Your task to perform on an android device: check data usage Image 0: 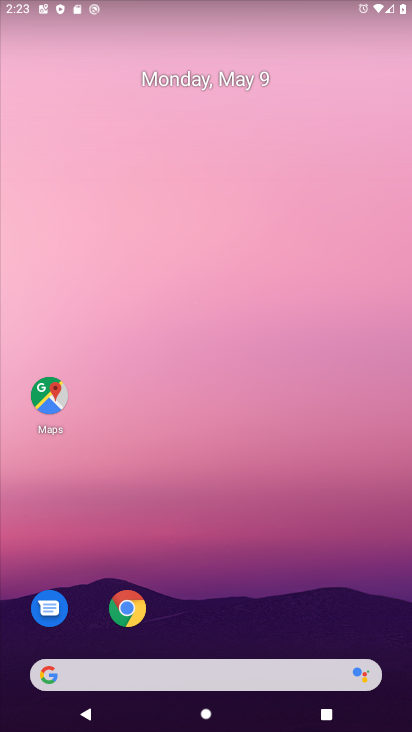
Step 0: drag from (195, 635) to (354, 16)
Your task to perform on an android device: check data usage Image 1: 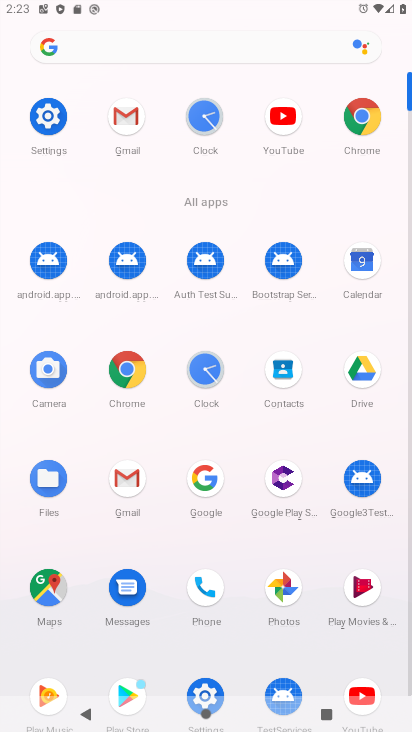
Step 1: click (53, 176)
Your task to perform on an android device: check data usage Image 2: 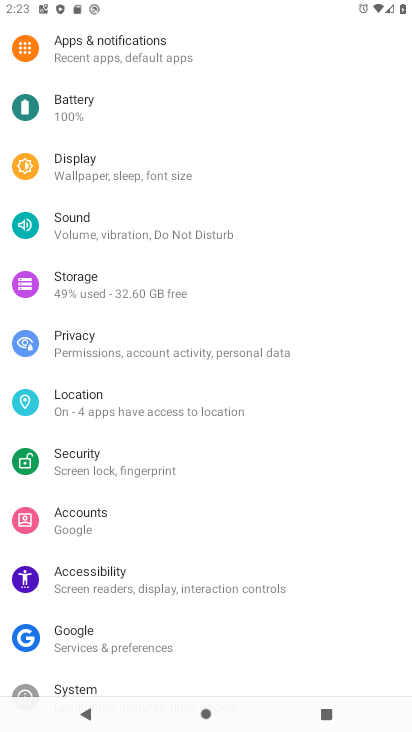
Step 2: drag from (295, 86) to (134, 599)
Your task to perform on an android device: check data usage Image 3: 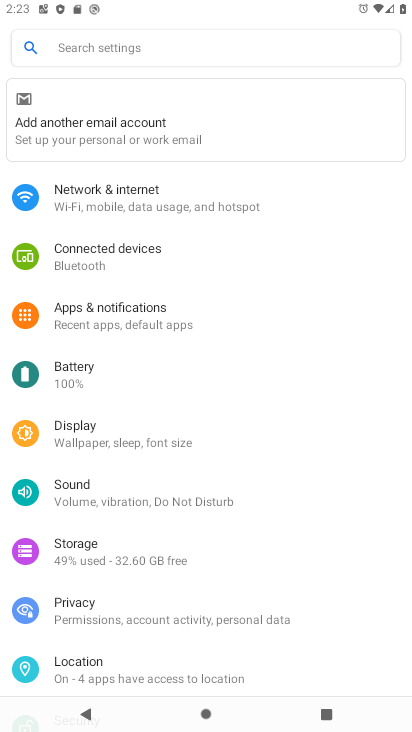
Step 3: click (156, 176)
Your task to perform on an android device: check data usage Image 4: 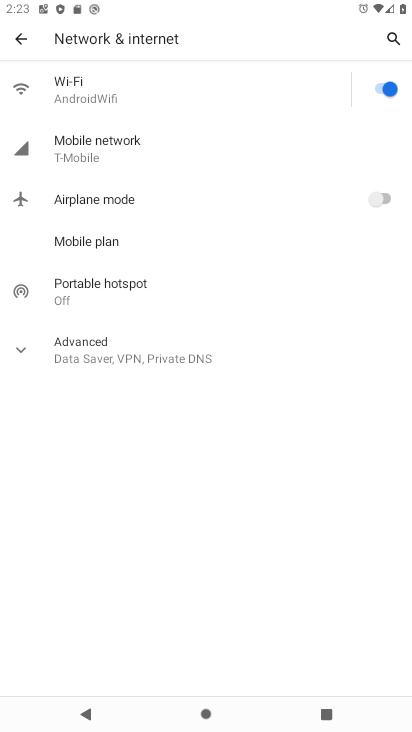
Step 4: click (132, 151)
Your task to perform on an android device: check data usage Image 5: 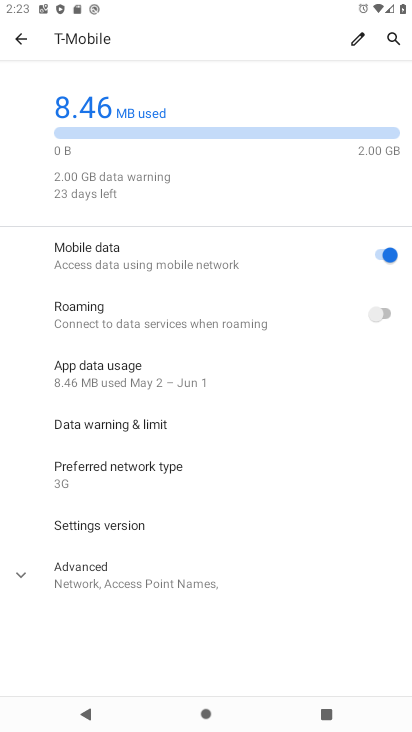
Step 5: task complete